Your task to perform on an android device: check the backup settings in the google photos Image 0: 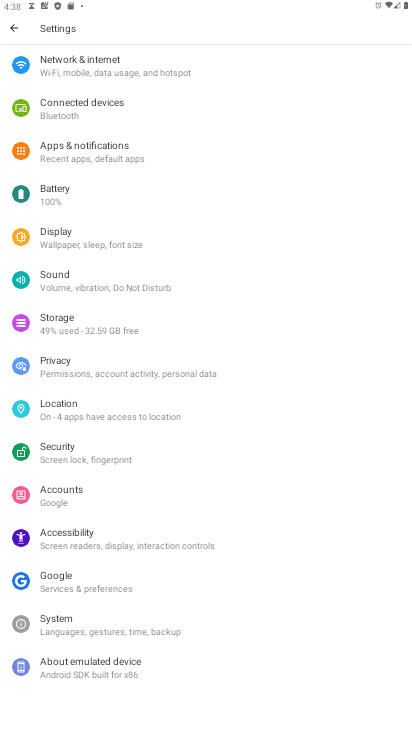
Step 0: press home button
Your task to perform on an android device: check the backup settings in the google photos Image 1: 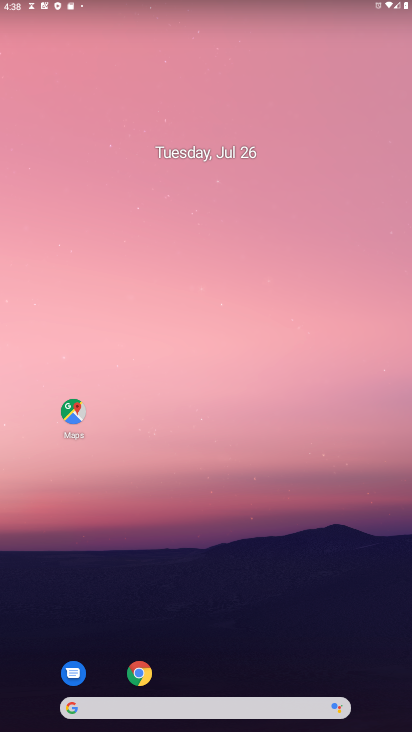
Step 1: drag from (181, 709) to (232, 86)
Your task to perform on an android device: check the backup settings in the google photos Image 2: 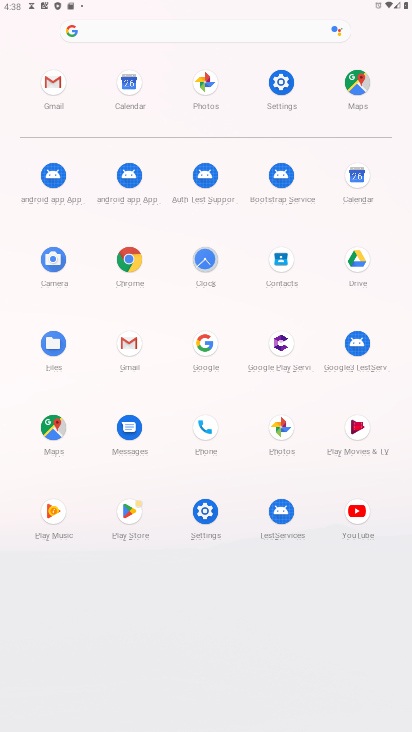
Step 2: click (278, 426)
Your task to perform on an android device: check the backup settings in the google photos Image 3: 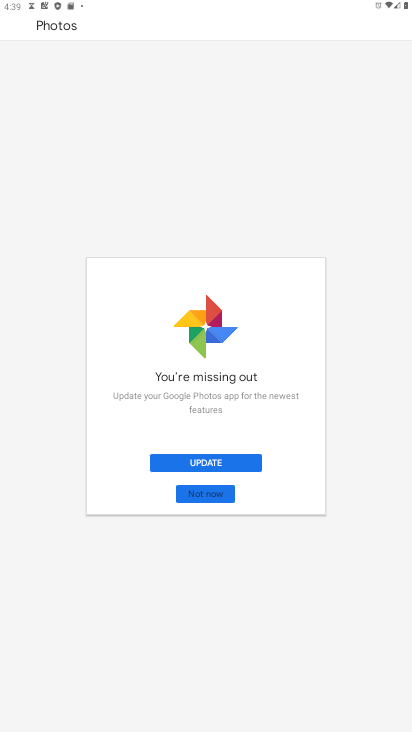
Step 3: click (196, 459)
Your task to perform on an android device: check the backup settings in the google photos Image 4: 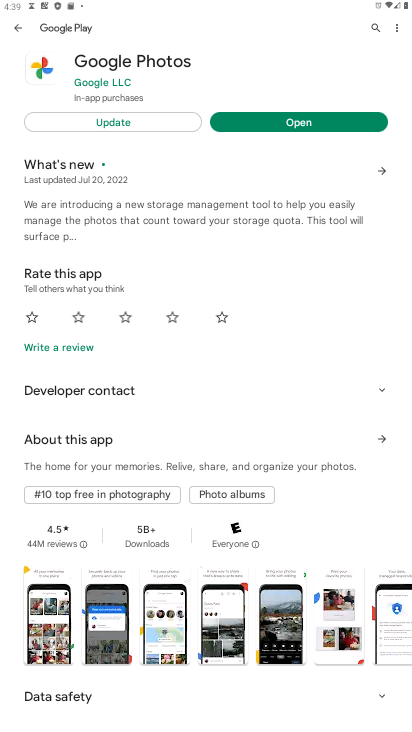
Step 4: click (100, 126)
Your task to perform on an android device: check the backup settings in the google photos Image 5: 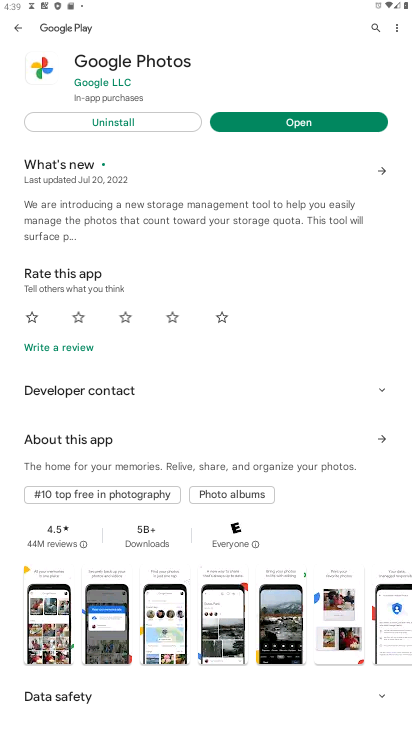
Step 5: click (272, 122)
Your task to perform on an android device: check the backup settings in the google photos Image 6: 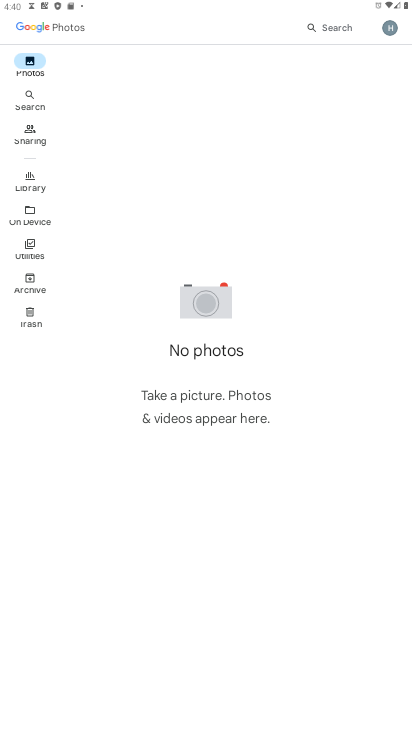
Step 6: click (392, 31)
Your task to perform on an android device: check the backup settings in the google photos Image 7: 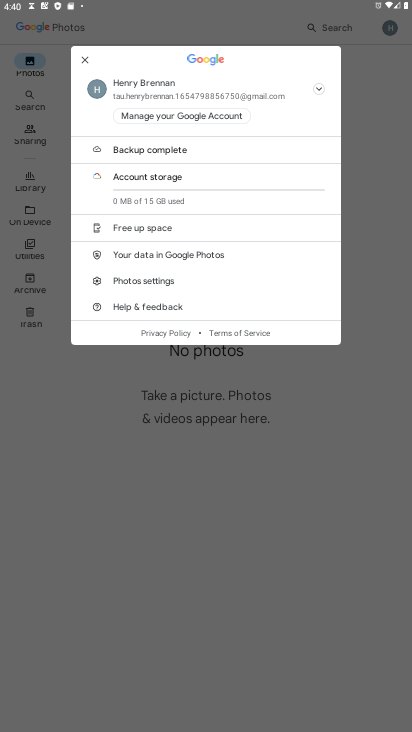
Step 7: click (150, 285)
Your task to perform on an android device: check the backup settings in the google photos Image 8: 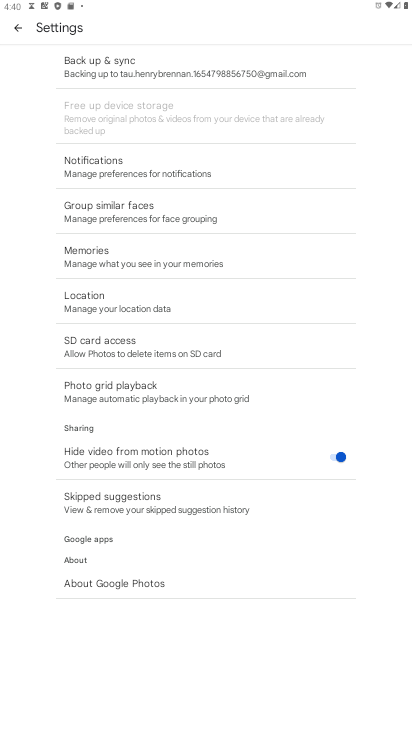
Step 8: click (177, 76)
Your task to perform on an android device: check the backup settings in the google photos Image 9: 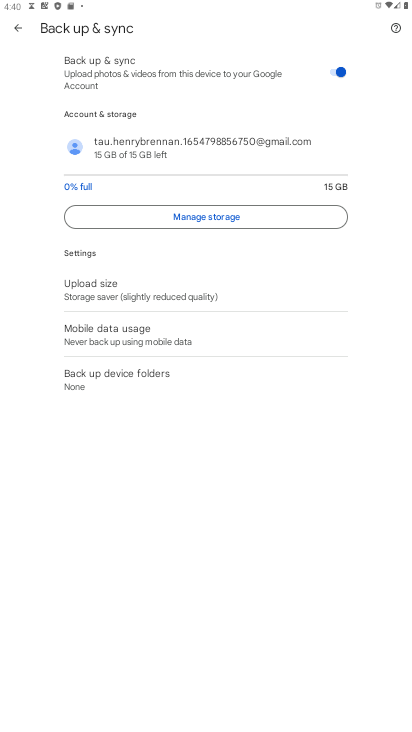
Step 9: task complete